Your task to perform on an android device: toggle sleep mode Image 0: 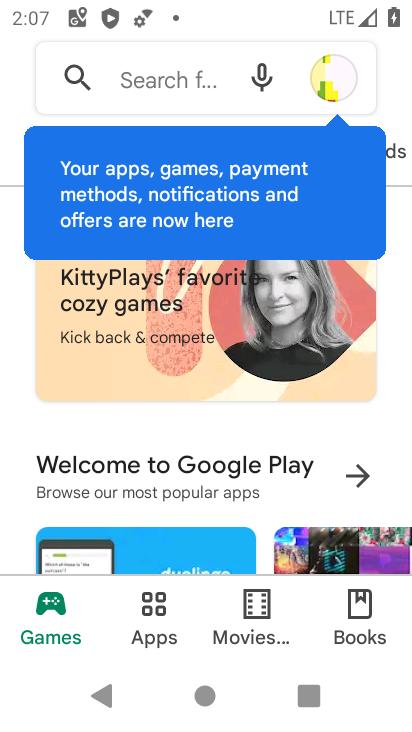
Step 0: press home button
Your task to perform on an android device: toggle sleep mode Image 1: 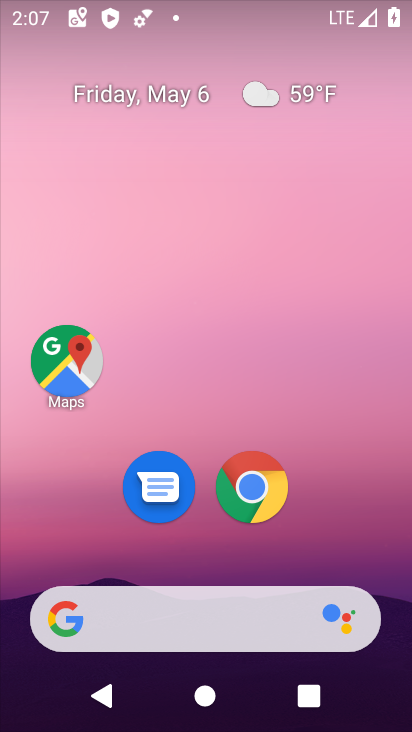
Step 1: drag from (220, 588) to (226, 167)
Your task to perform on an android device: toggle sleep mode Image 2: 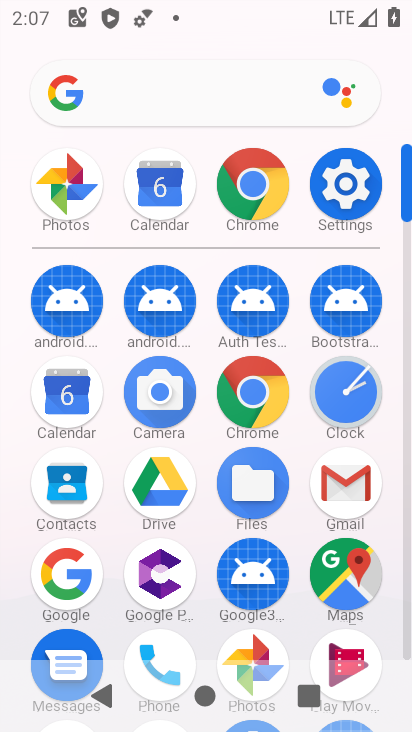
Step 2: click (359, 204)
Your task to perform on an android device: toggle sleep mode Image 3: 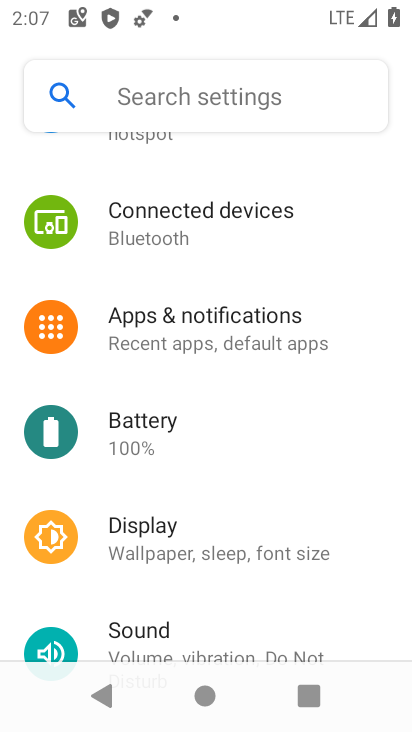
Step 3: drag from (226, 536) to (253, 309)
Your task to perform on an android device: toggle sleep mode Image 4: 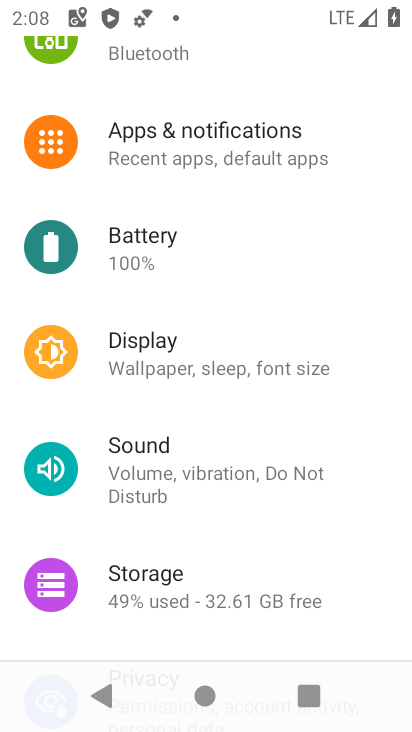
Step 4: click (214, 350)
Your task to perform on an android device: toggle sleep mode Image 5: 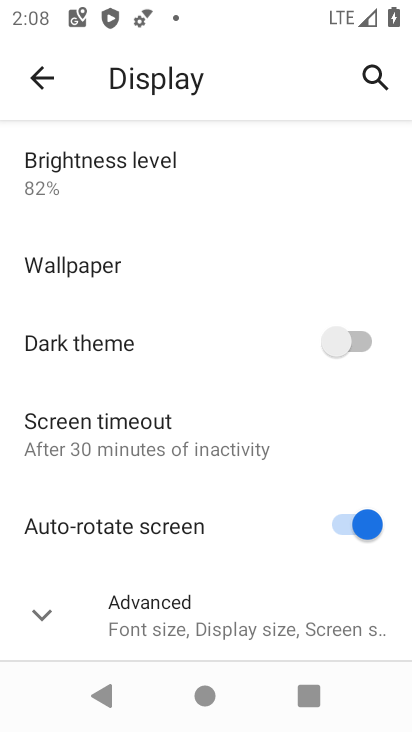
Step 5: click (180, 617)
Your task to perform on an android device: toggle sleep mode Image 6: 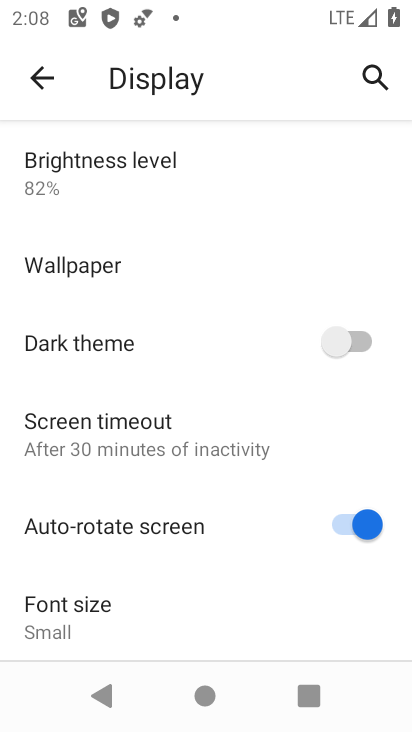
Step 6: task complete